Your task to perform on an android device: turn on the 12-hour format for clock Image 0: 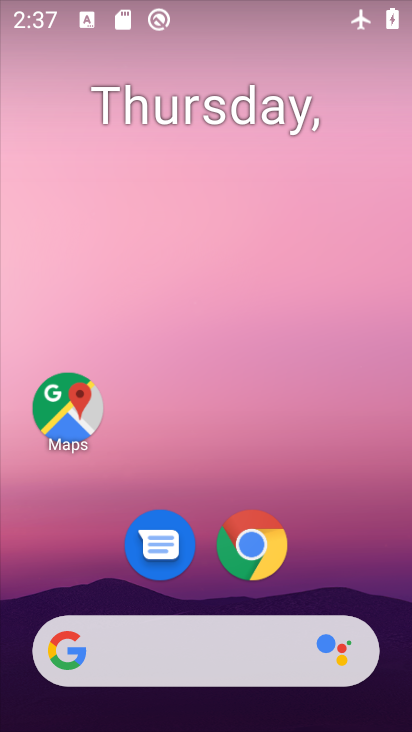
Step 0: drag from (186, 716) to (154, 167)
Your task to perform on an android device: turn on the 12-hour format for clock Image 1: 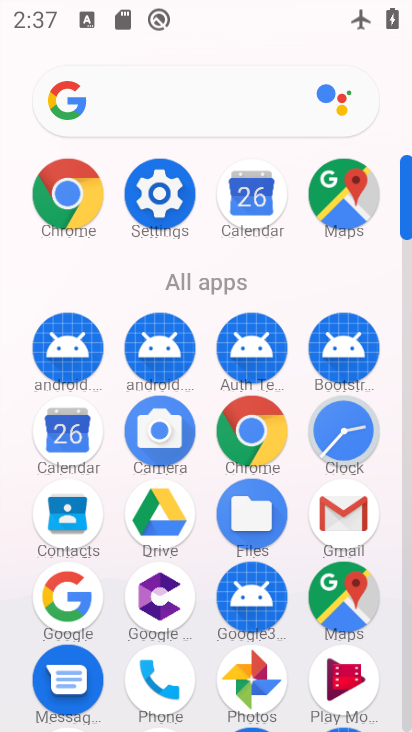
Step 1: click (156, 200)
Your task to perform on an android device: turn on the 12-hour format for clock Image 2: 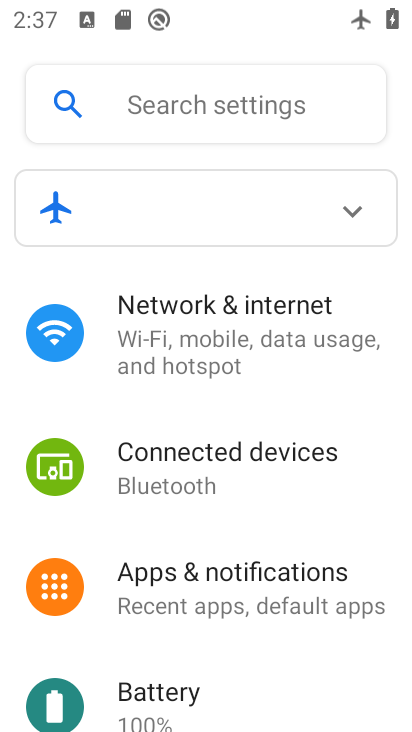
Step 2: press home button
Your task to perform on an android device: turn on the 12-hour format for clock Image 3: 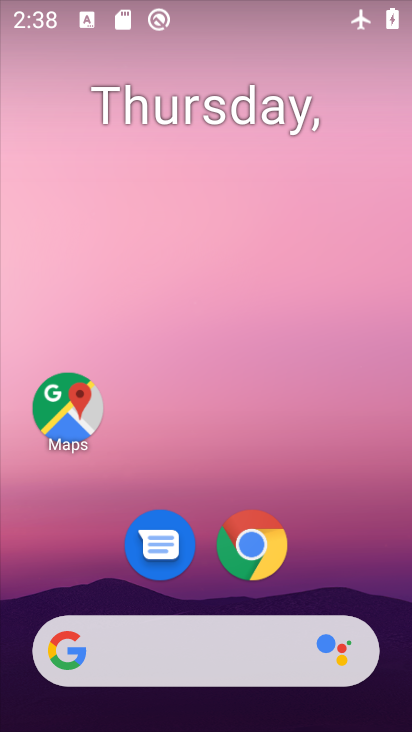
Step 3: drag from (194, 677) to (225, 211)
Your task to perform on an android device: turn on the 12-hour format for clock Image 4: 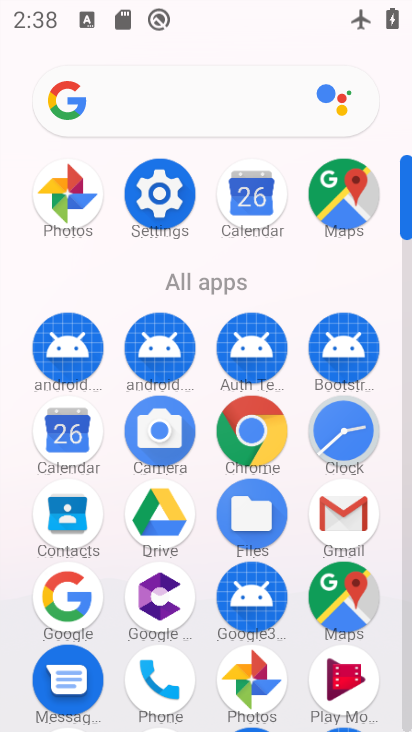
Step 4: click (328, 421)
Your task to perform on an android device: turn on the 12-hour format for clock Image 5: 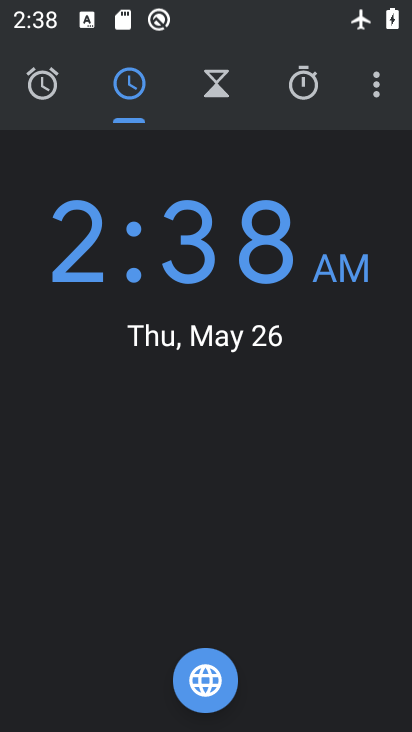
Step 5: click (378, 74)
Your task to perform on an android device: turn on the 12-hour format for clock Image 6: 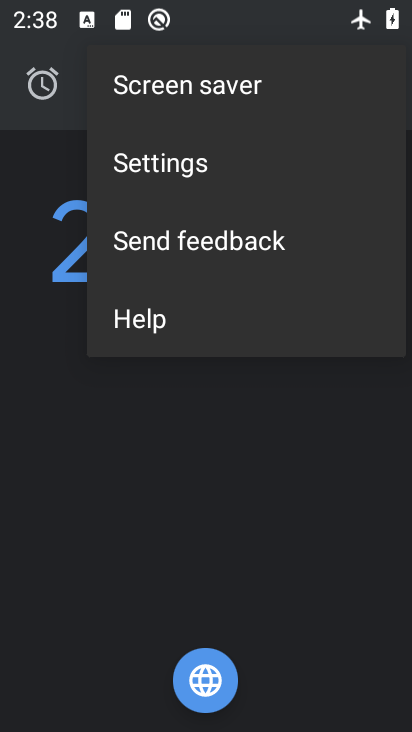
Step 6: click (152, 154)
Your task to perform on an android device: turn on the 12-hour format for clock Image 7: 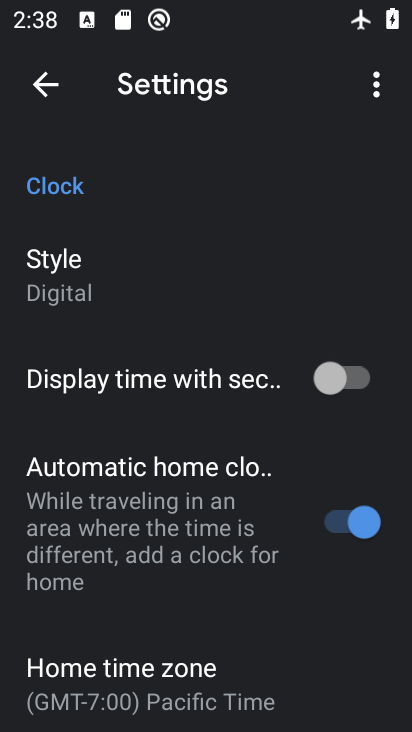
Step 7: drag from (268, 596) to (263, 84)
Your task to perform on an android device: turn on the 12-hour format for clock Image 8: 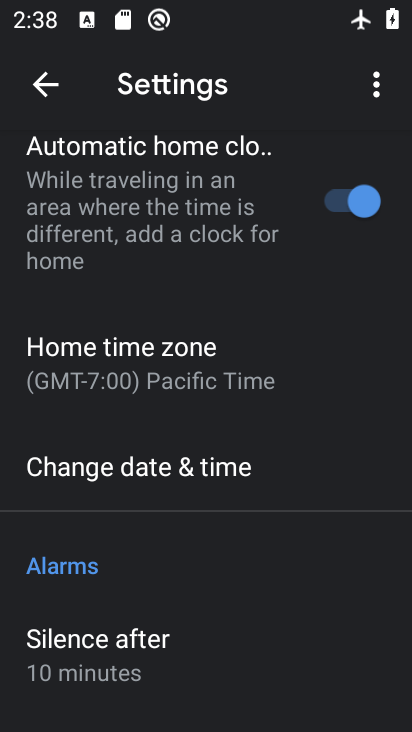
Step 8: click (285, 457)
Your task to perform on an android device: turn on the 12-hour format for clock Image 9: 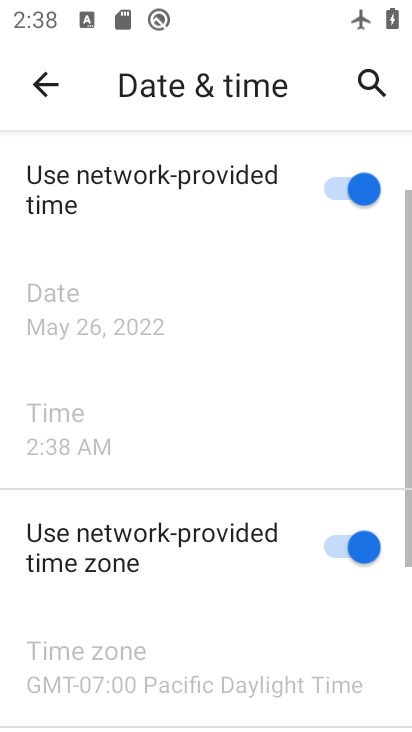
Step 9: task complete